Your task to perform on an android device: Open Google Image 0: 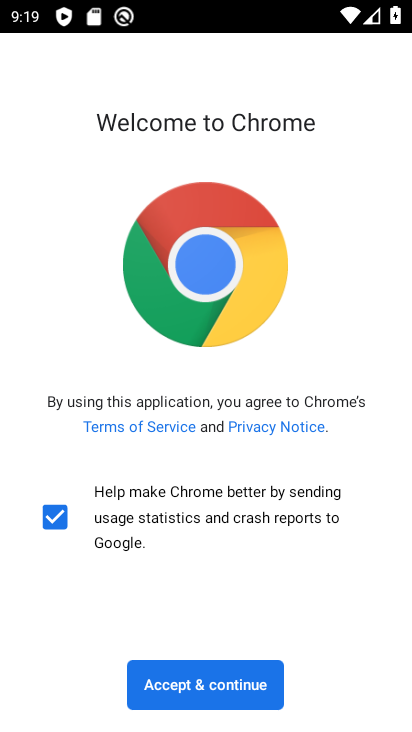
Step 0: press home button
Your task to perform on an android device: Open Google Image 1: 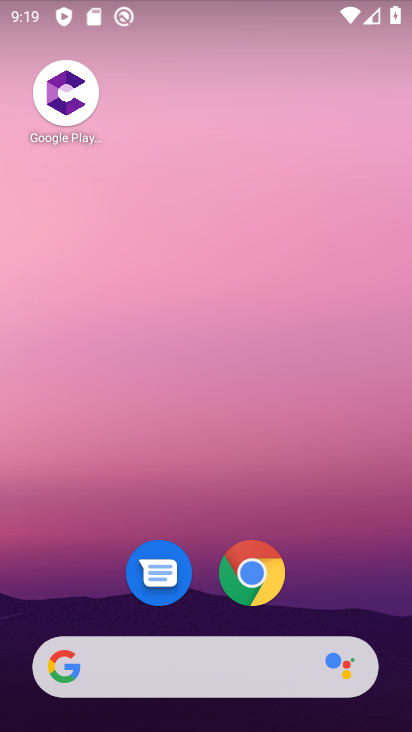
Step 1: drag from (296, 597) to (297, 116)
Your task to perform on an android device: Open Google Image 2: 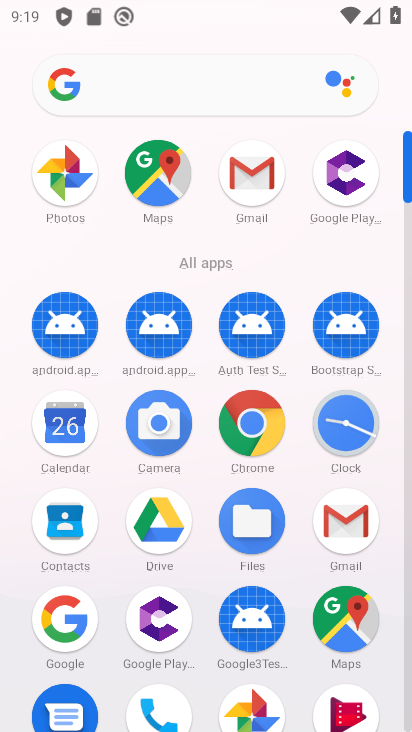
Step 2: drag from (71, 615) to (72, 200)
Your task to perform on an android device: Open Google Image 3: 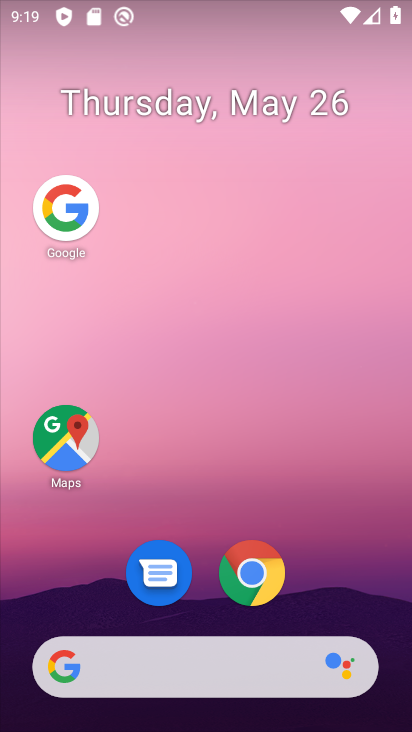
Step 3: click (69, 200)
Your task to perform on an android device: Open Google Image 4: 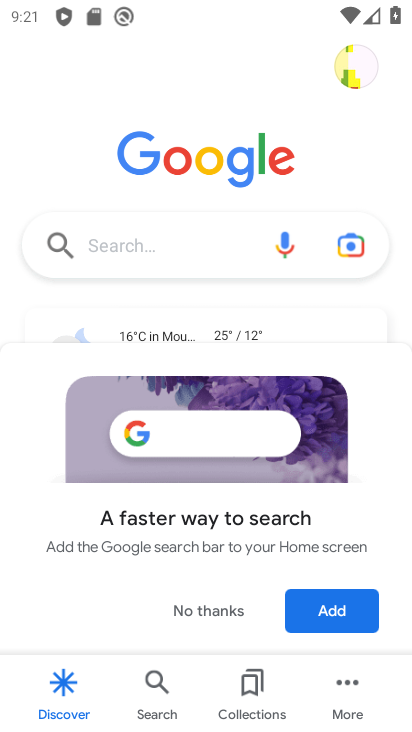
Step 4: task complete